Your task to perform on an android device: toggle javascript in the chrome app Image 0: 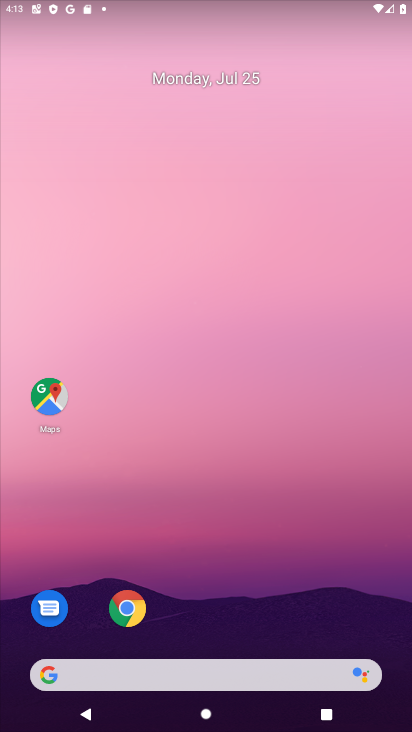
Step 0: press home button
Your task to perform on an android device: toggle javascript in the chrome app Image 1: 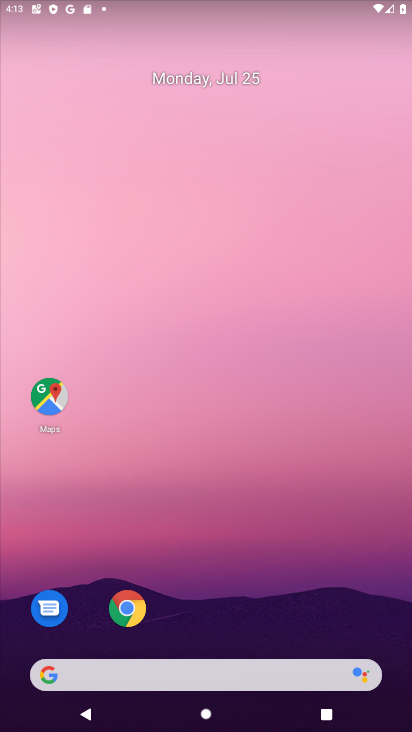
Step 1: click (124, 604)
Your task to perform on an android device: toggle javascript in the chrome app Image 2: 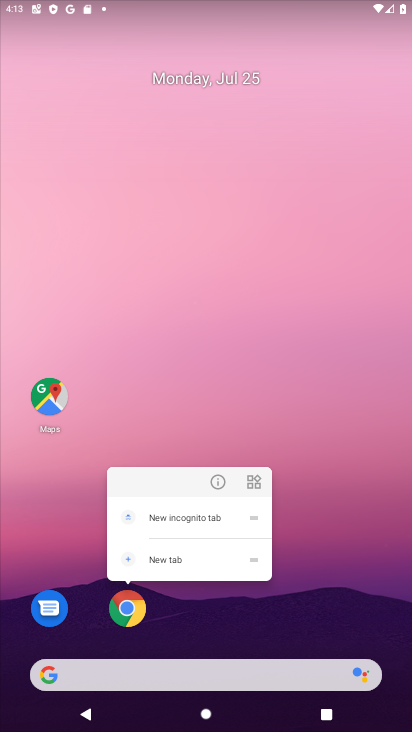
Step 2: click (123, 606)
Your task to perform on an android device: toggle javascript in the chrome app Image 3: 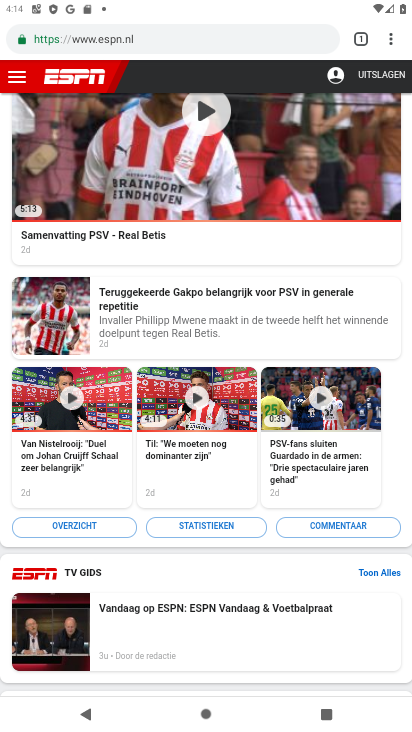
Step 3: click (386, 33)
Your task to perform on an android device: toggle javascript in the chrome app Image 4: 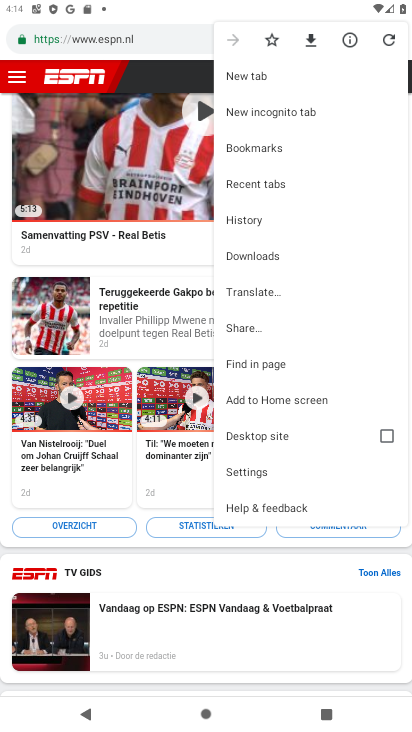
Step 4: click (273, 469)
Your task to perform on an android device: toggle javascript in the chrome app Image 5: 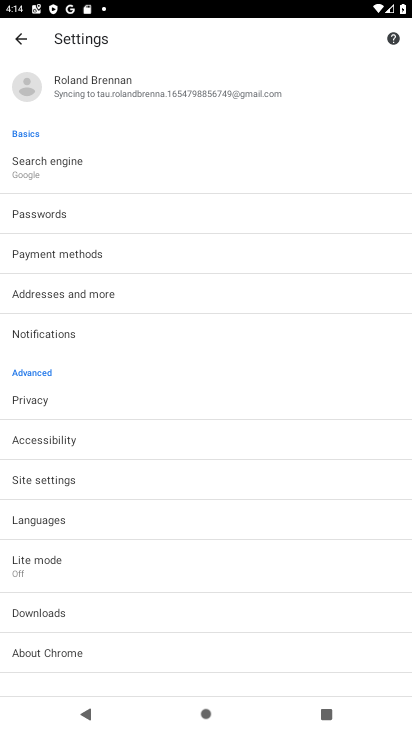
Step 5: click (89, 478)
Your task to perform on an android device: toggle javascript in the chrome app Image 6: 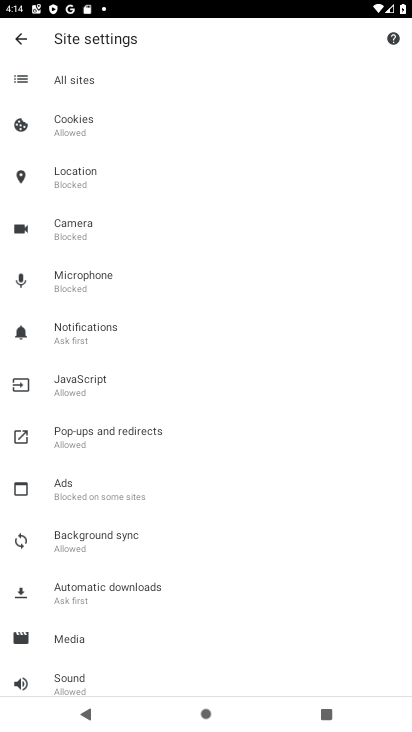
Step 6: click (121, 376)
Your task to perform on an android device: toggle javascript in the chrome app Image 7: 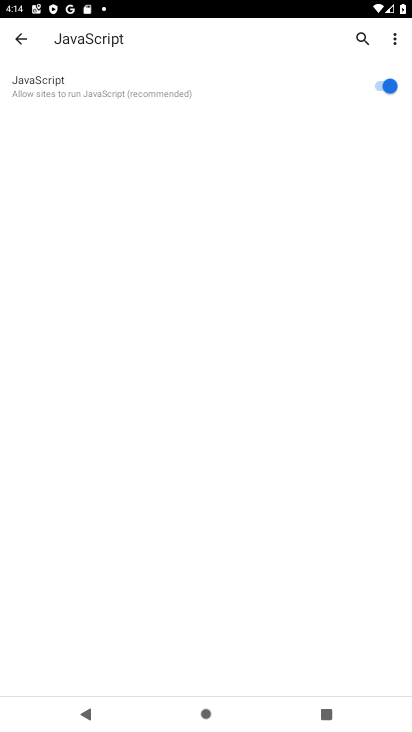
Step 7: click (379, 85)
Your task to perform on an android device: toggle javascript in the chrome app Image 8: 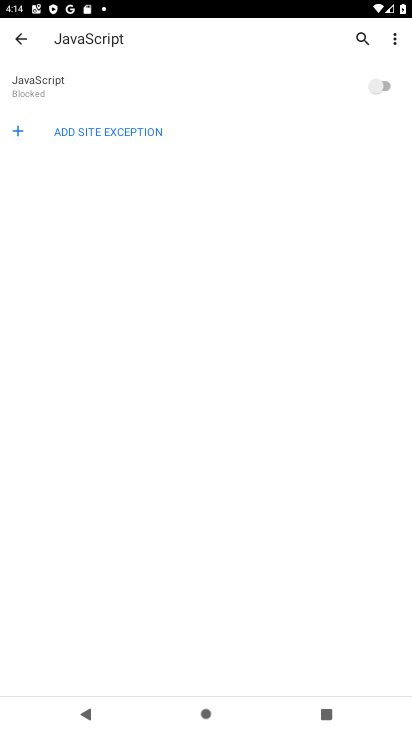
Step 8: task complete